Your task to perform on an android device: Go to Reddit.com Image 0: 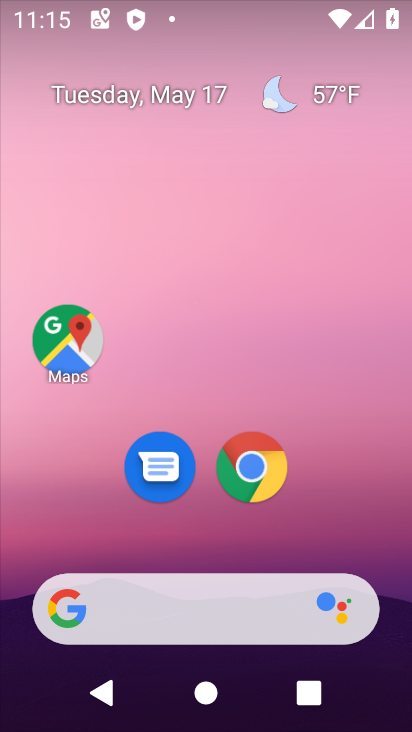
Step 0: drag from (260, 641) to (254, 210)
Your task to perform on an android device: Go to Reddit.com Image 1: 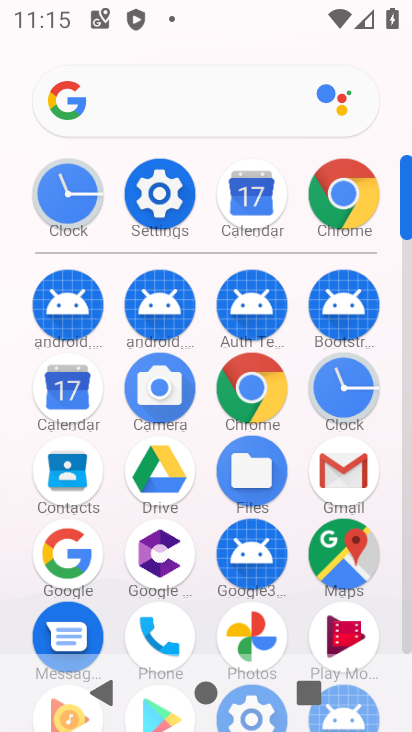
Step 1: click (338, 212)
Your task to perform on an android device: Go to Reddit.com Image 2: 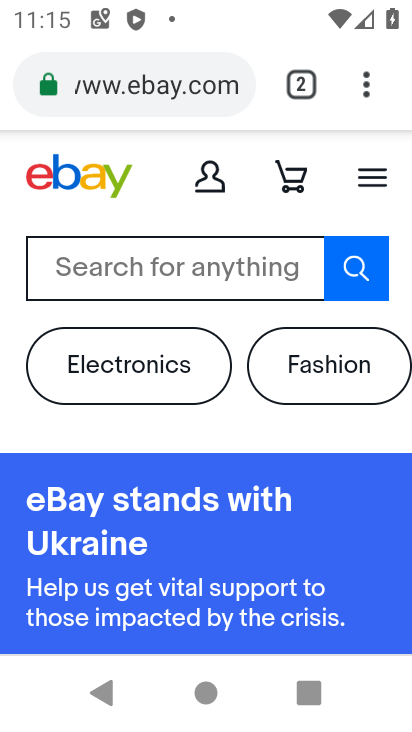
Step 2: click (207, 73)
Your task to perform on an android device: Go to Reddit.com Image 3: 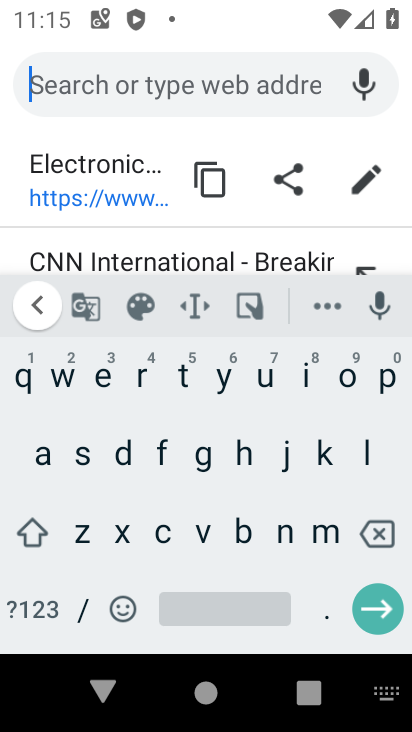
Step 3: click (139, 375)
Your task to perform on an android device: Go to Reddit.com Image 4: 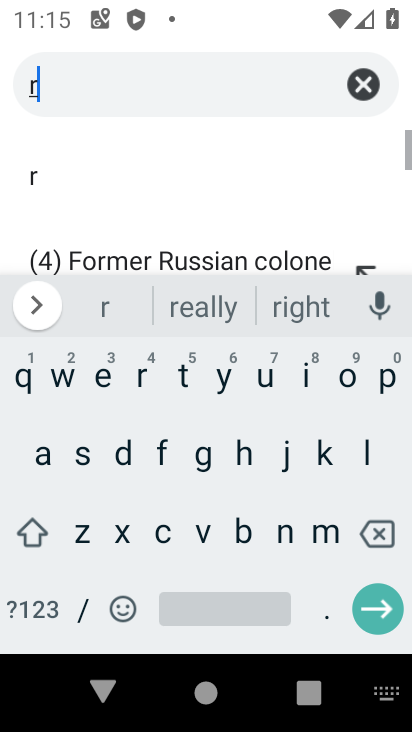
Step 4: click (100, 382)
Your task to perform on an android device: Go to Reddit.com Image 5: 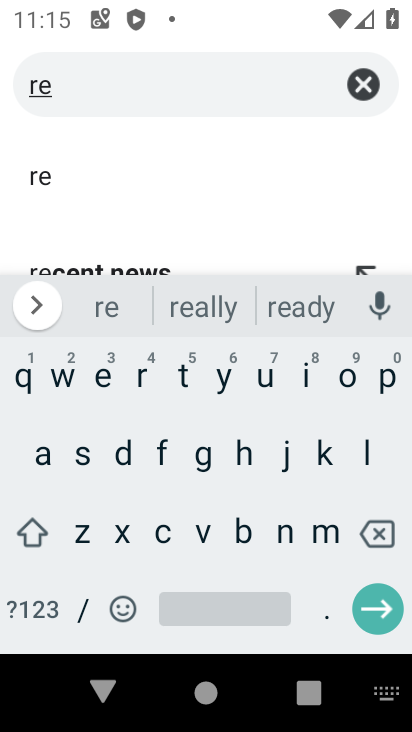
Step 5: click (120, 451)
Your task to perform on an android device: Go to Reddit.com Image 6: 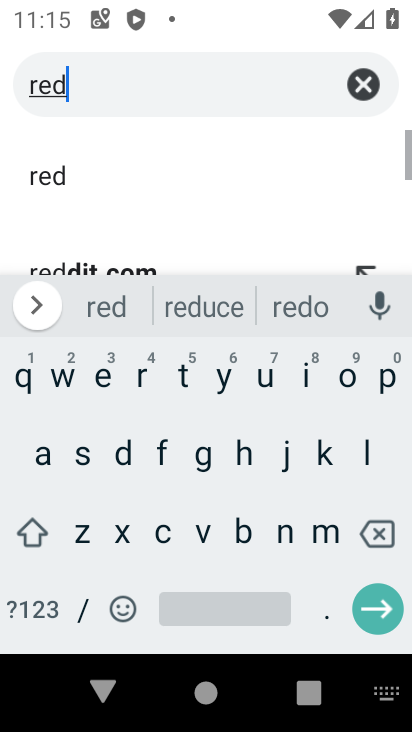
Step 6: click (120, 451)
Your task to perform on an android device: Go to Reddit.com Image 7: 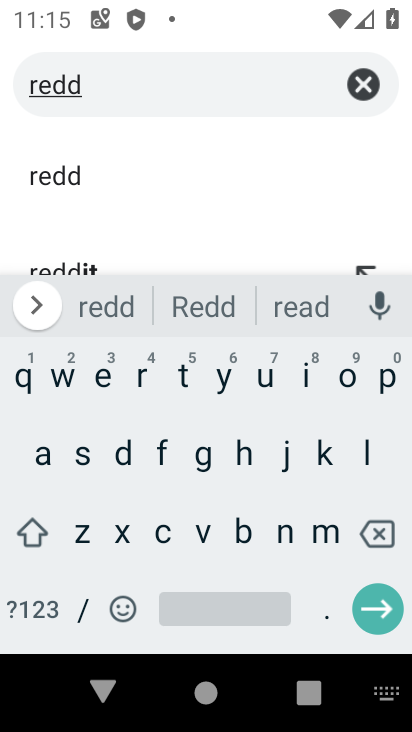
Step 7: click (304, 385)
Your task to perform on an android device: Go to Reddit.com Image 8: 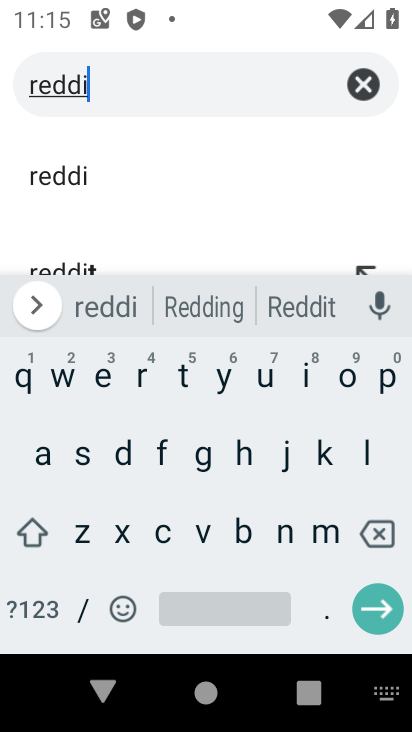
Step 8: click (310, 307)
Your task to perform on an android device: Go to Reddit.com Image 9: 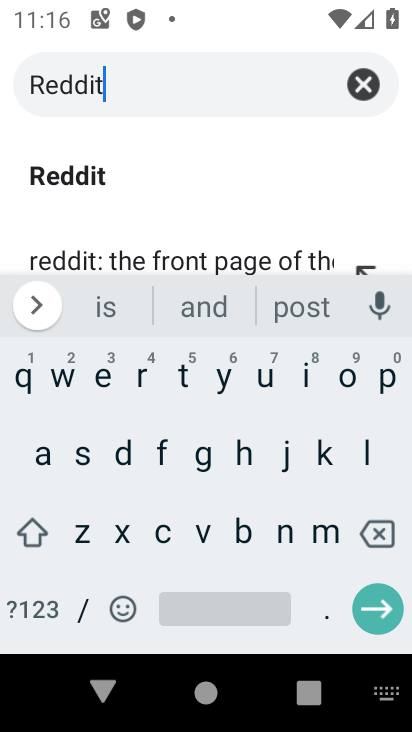
Step 9: click (318, 611)
Your task to perform on an android device: Go to Reddit.com Image 10: 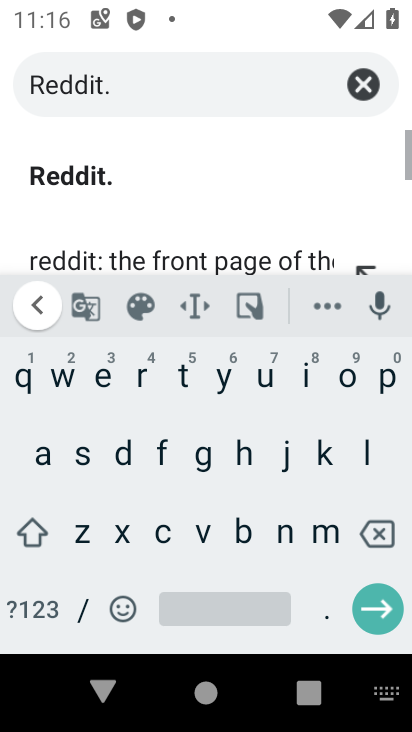
Step 10: click (151, 536)
Your task to perform on an android device: Go to Reddit.com Image 11: 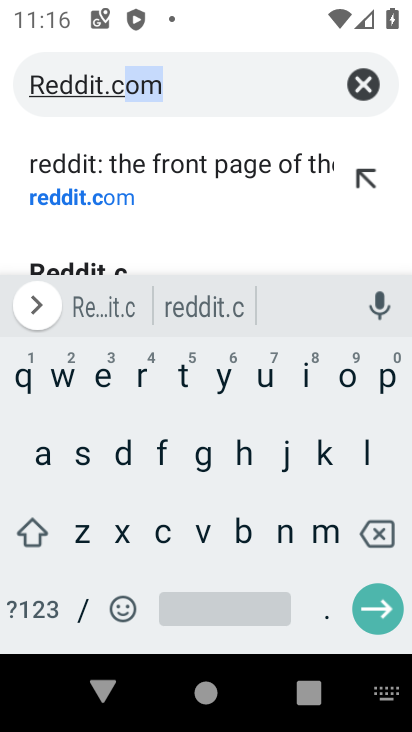
Step 11: click (192, 89)
Your task to perform on an android device: Go to Reddit.com Image 12: 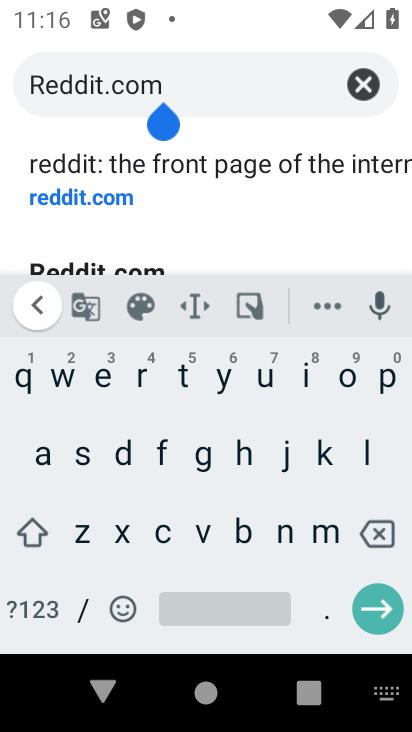
Step 12: click (370, 616)
Your task to perform on an android device: Go to Reddit.com Image 13: 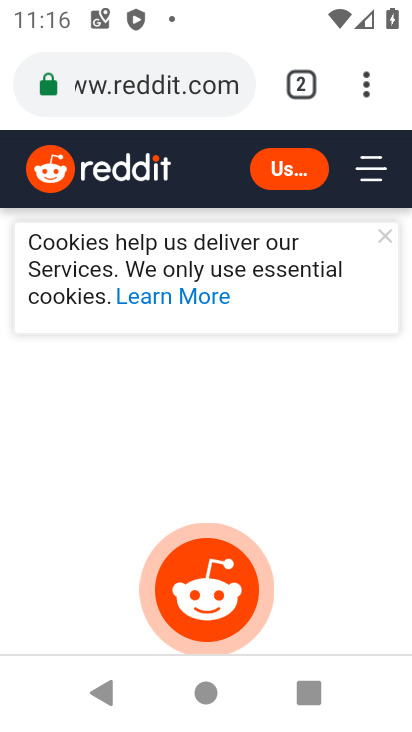
Step 13: task complete